Your task to perform on an android device: Go to calendar. Show me events next week Image 0: 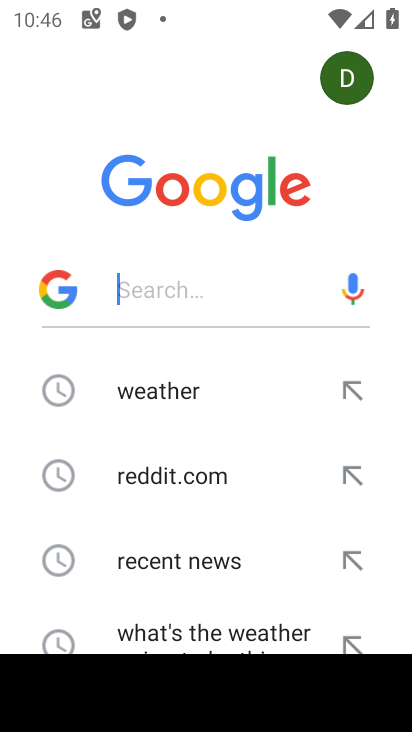
Step 0: press back button
Your task to perform on an android device: Go to calendar. Show me events next week Image 1: 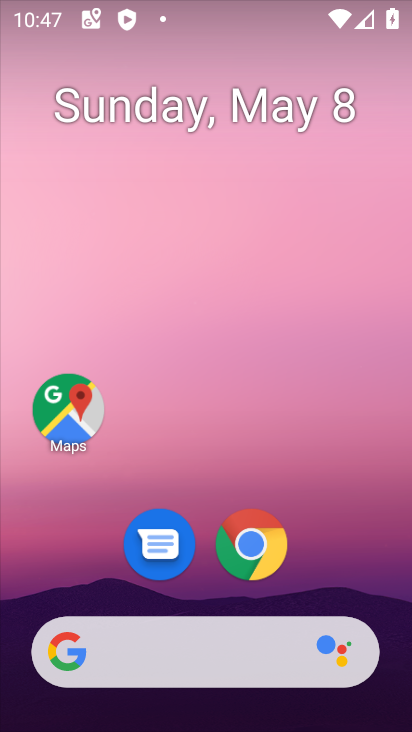
Step 1: drag from (325, 566) to (235, 280)
Your task to perform on an android device: Go to calendar. Show me events next week Image 2: 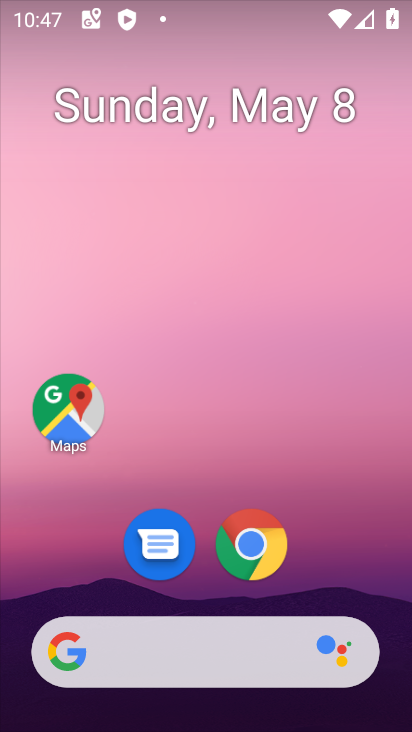
Step 2: drag from (300, 574) to (285, 16)
Your task to perform on an android device: Go to calendar. Show me events next week Image 3: 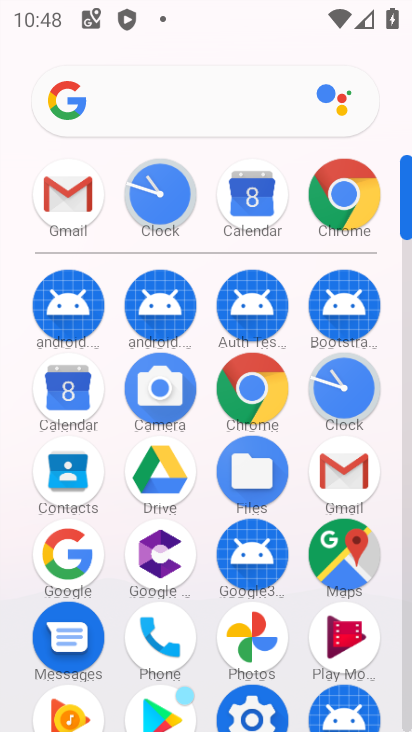
Step 3: click (257, 724)
Your task to perform on an android device: Go to calendar. Show me events next week Image 4: 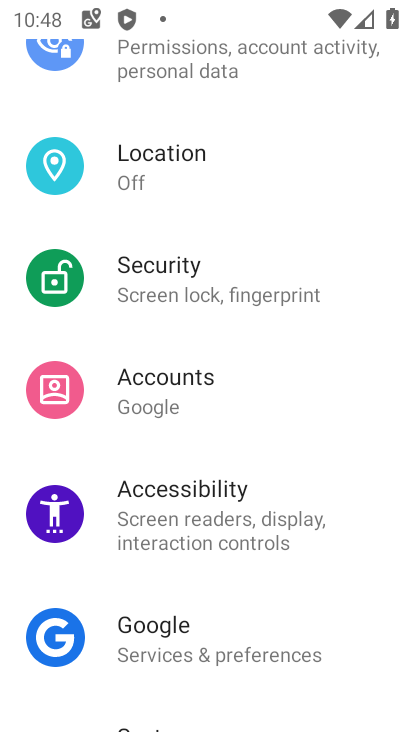
Step 4: drag from (257, 724) to (214, 474)
Your task to perform on an android device: Go to calendar. Show me events next week Image 5: 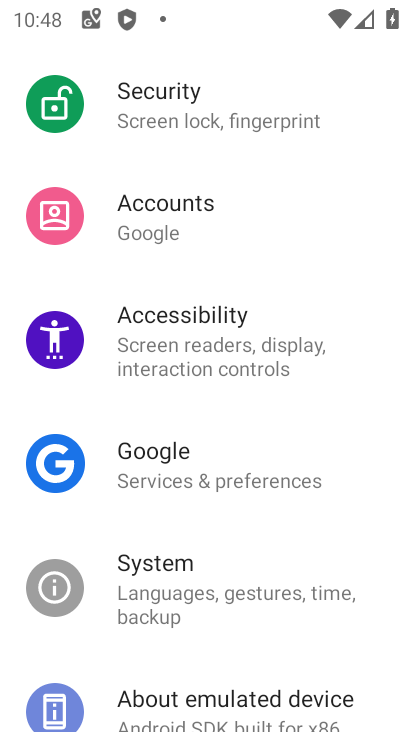
Step 5: press home button
Your task to perform on an android device: Go to calendar. Show me events next week Image 6: 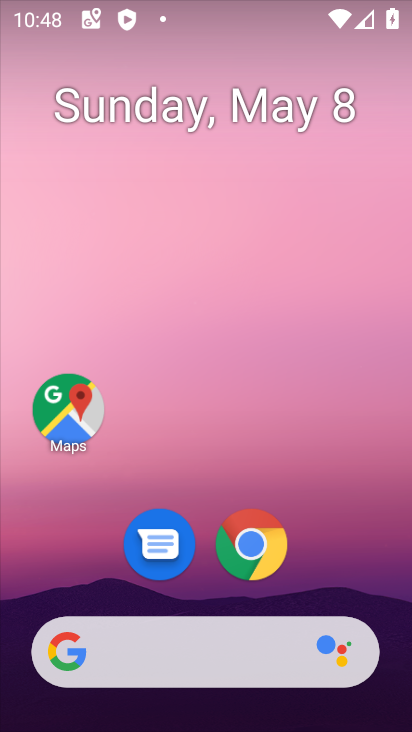
Step 6: drag from (329, 587) to (222, 90)
Your task to perform on an android device: Go to calendar. Show me events next week Image 7: 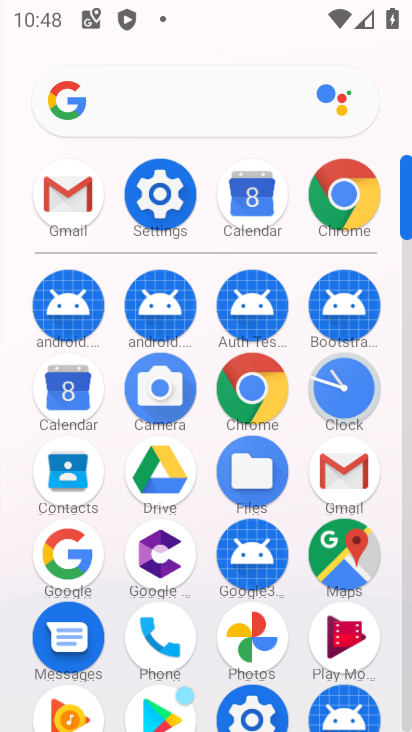
Step 7: click (72, 402)
Your task to perform on an android device: Go to calendar. Show me events next week Image 8: 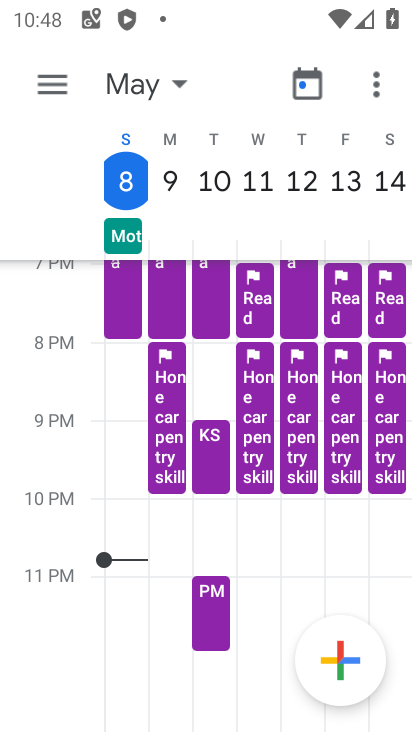
Step 8: task complete